Your task to perform on an android device: clear history in the chrome app Image 0: 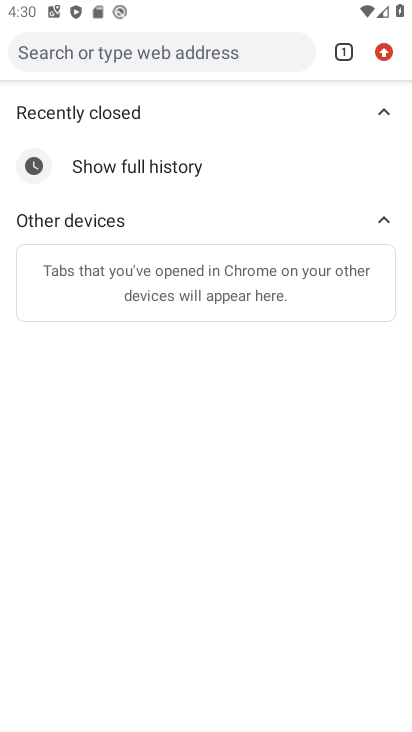
Step 0: press home button
Your task to perform on an android device: clear history in the chrome app Image 1: 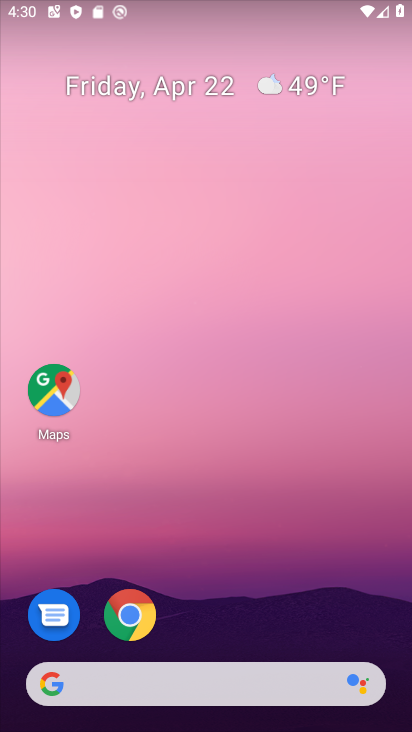
Step 1: click (118, 599)
Your task to perform on an android device: clear history in the chrome app Image 2: 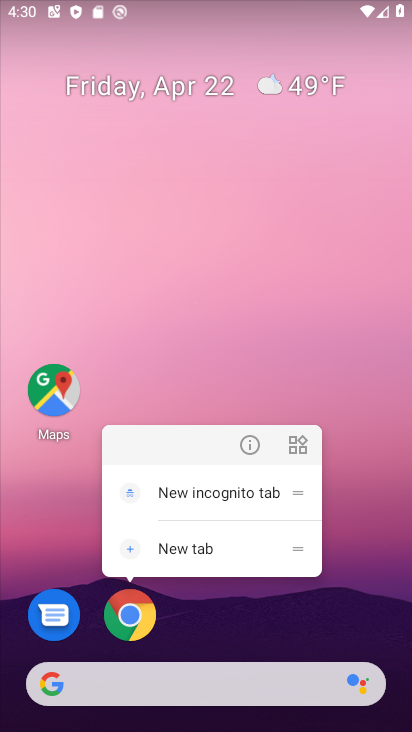
Step 2: click (125, 611)
Your task to perform on an android device: clear history in the chrome app Image 3: 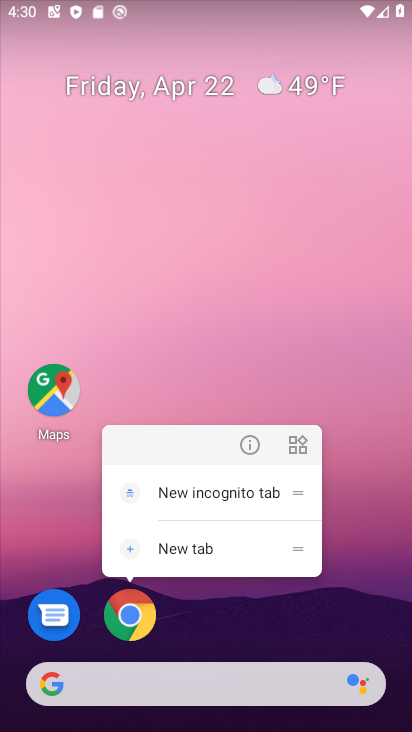
Step 3: click (124, 612)
Your task to perform on an android device: clear history in the chrome app Image 4: 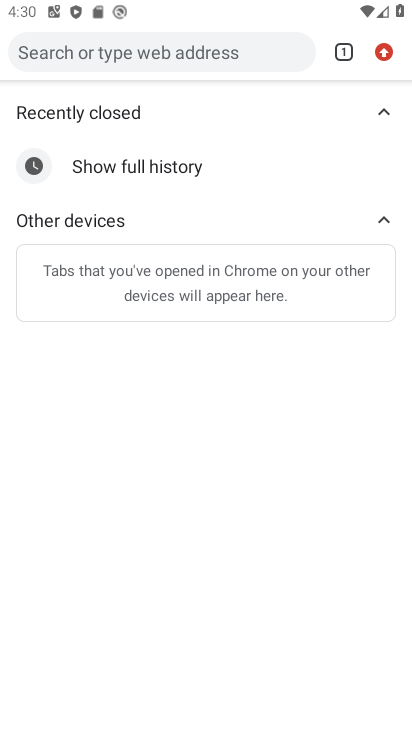
Step 4: drag from (377, 57) to (198, 349)
Your task to perform on an android device: clear history in the chrome app Image 5: 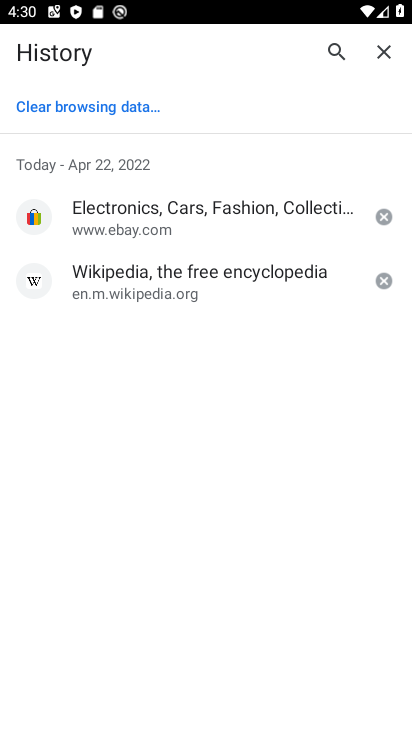
Step 5: click (89, 111)
Your task to perform on an android device: clear history in the chrome app Image 6: 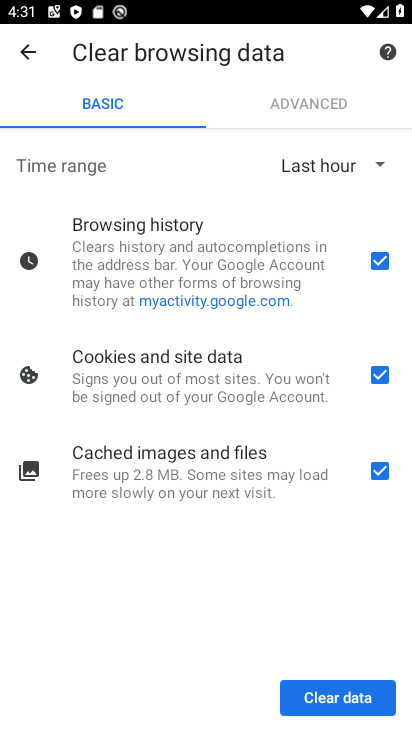
Step 6: click (344, 700)
Your task to perform on an android device: clear history in the chrome app Image 7: 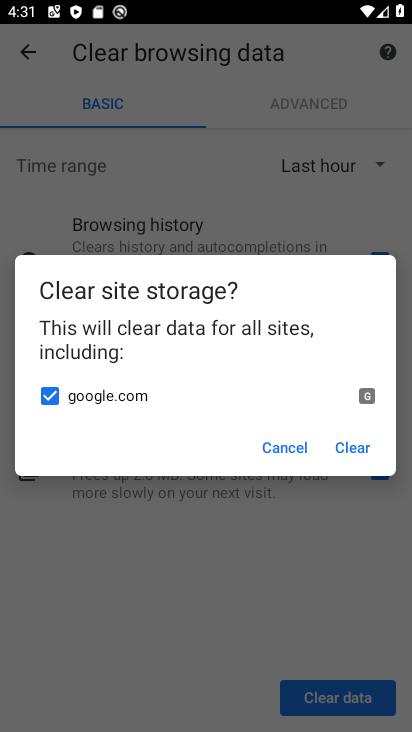
Step 7: click (348, 447)
Your task to perform on an android device: clear history in the chrome app Image 8: 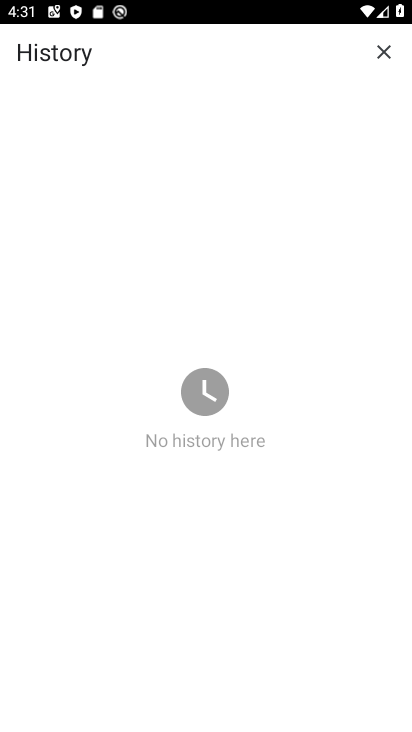
Step 8: task complete